Your task to perform on an android device: toggle notification dots Image 0: 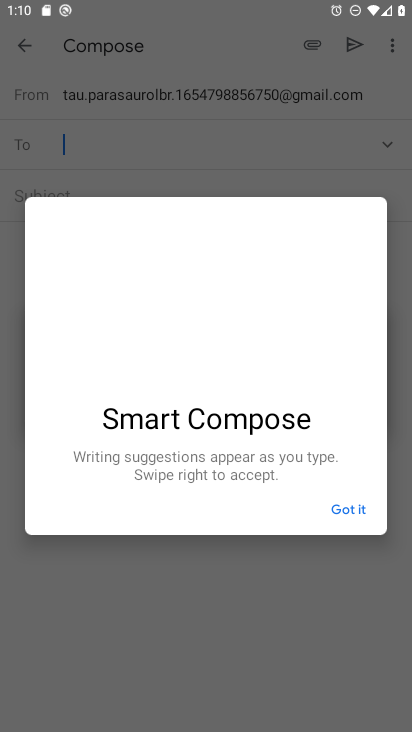
Step 0: press home button
Your task to perform on an android device: toggle notification dots Image 1: 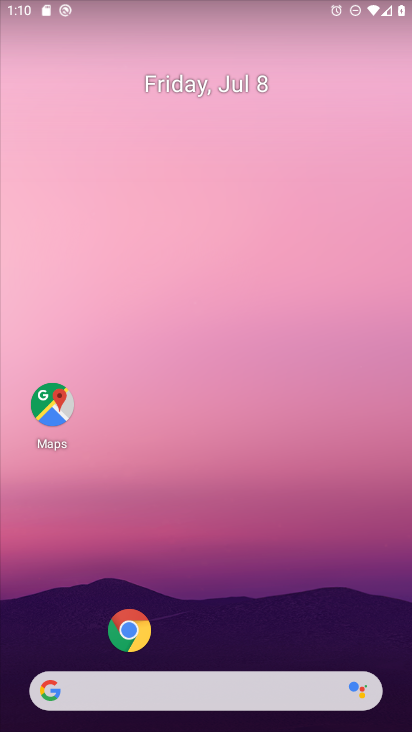
Step 1: drag from (181, 676) to (206, 5)
Your task to perform on an android device: toggle notification dots Image 2: 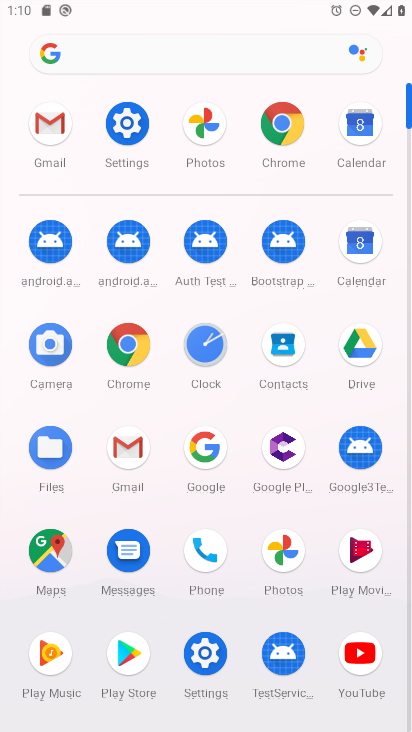
Step 2: click (115, 110)
Your task to perform on an android device: toggle notification dots Image 3: 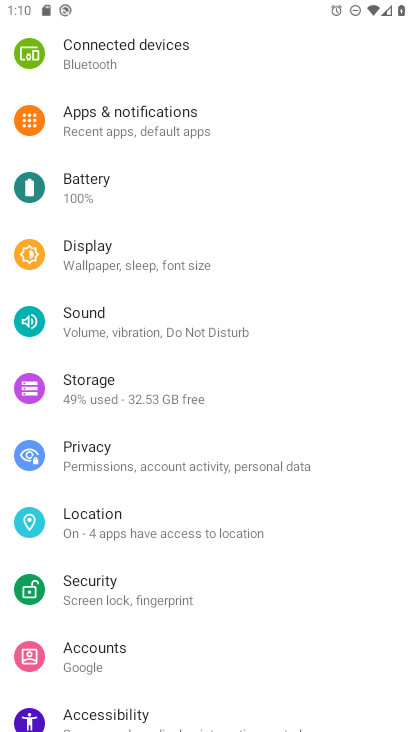
Step 3: click (144, 131)
Your task to perform on an android device: toggle notification dots Image 4: 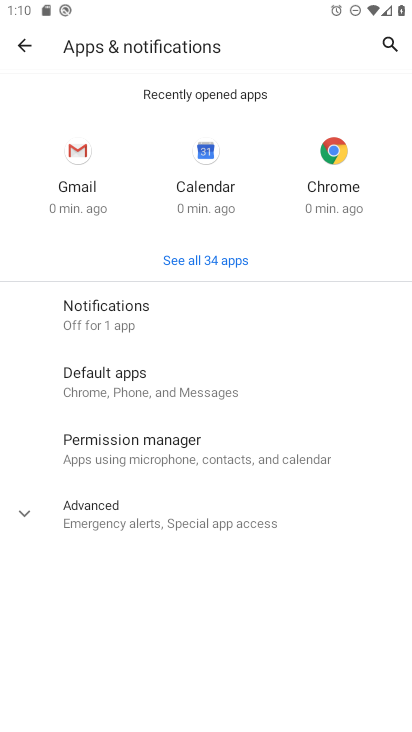
Step 4: click (132, 307)
Your task to perform on an android device: toggle notification dots Image 5: 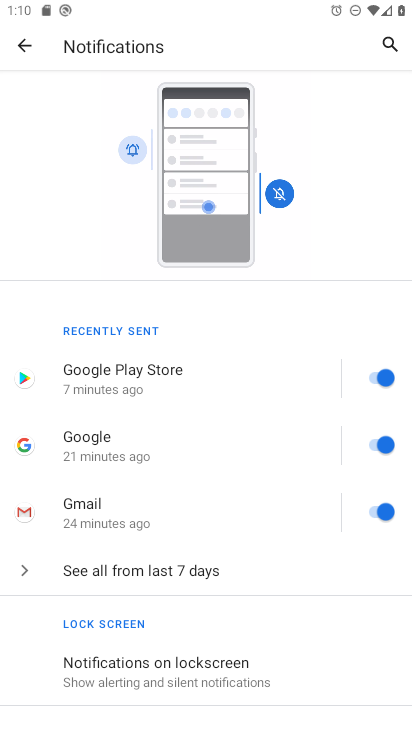
Step 5: drag from (233, 613) to (218, 245)
Your task to perform on an android device: toggle notification dots Image 6: 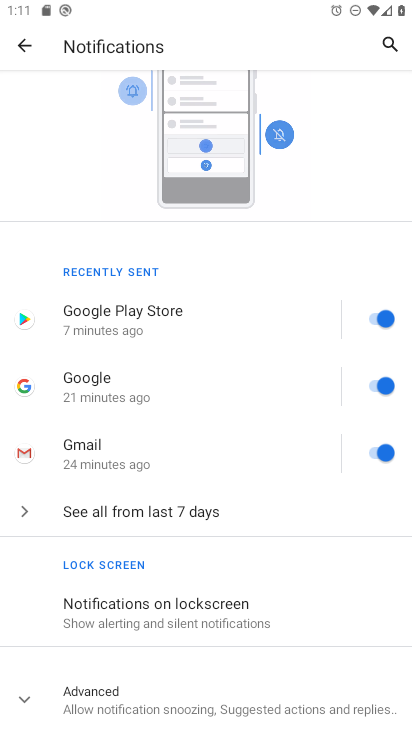
Step 6: click (176, 694)
Your task to perform on an android device: toggle notification dots Image 7: 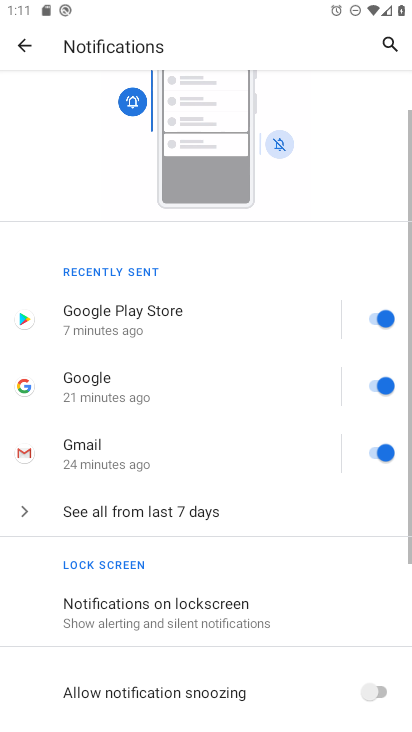
Step 7: drag from (189, 683) to (301, 199)
Your task to perform on an android device: toggle notification dots Image 8: 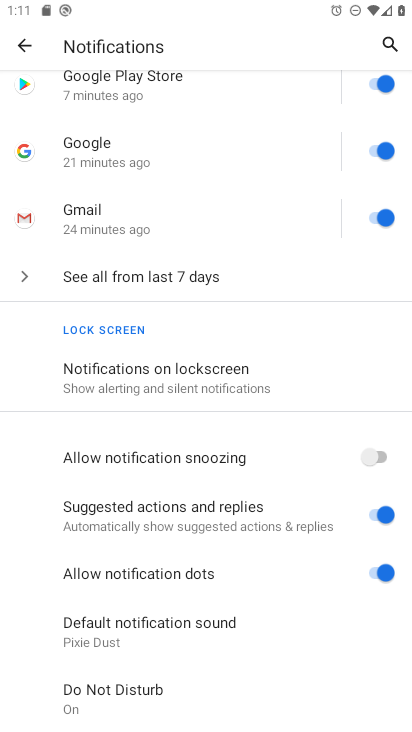
Step 8: click (381, 570)
Your task to perform on an android device: toggle notification dots Image 9: 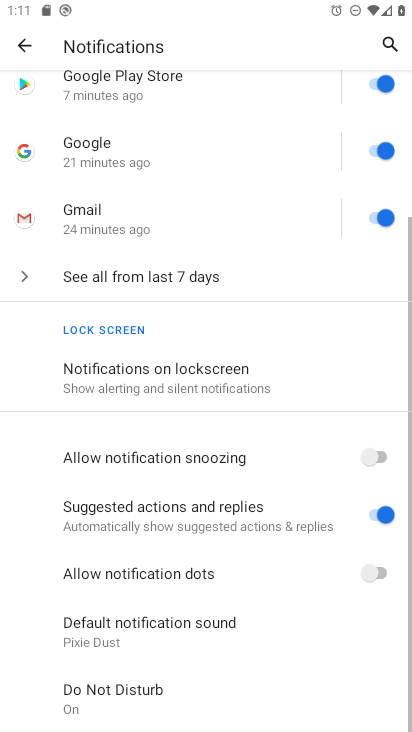
Step 9: task complete